Your task to perform on an android device: Open Maps and search for coffee Image 0: 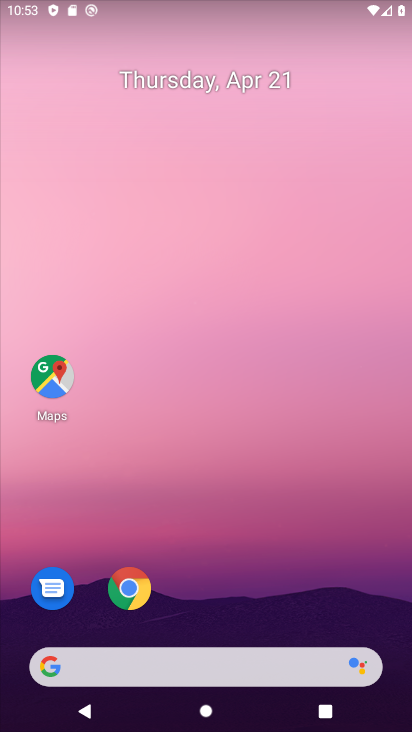
Step 0: click (37, 379)
Your task to perform on an android device: Open Maps and search for coffee Image 1: 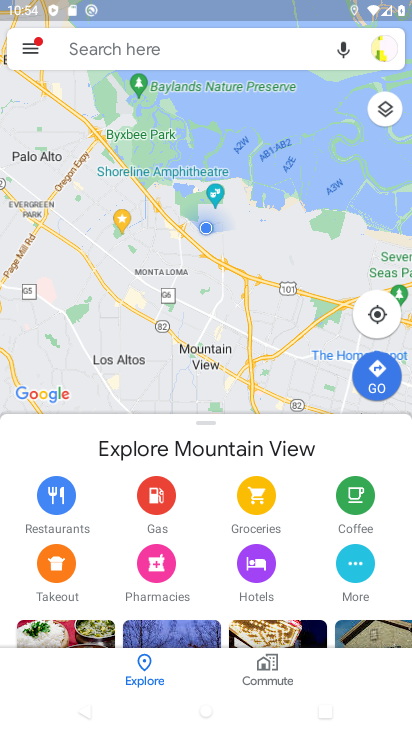
Step 1: click (191, 50)
Your task to perform on an android device: Open Maps and search for coffee Image 2: 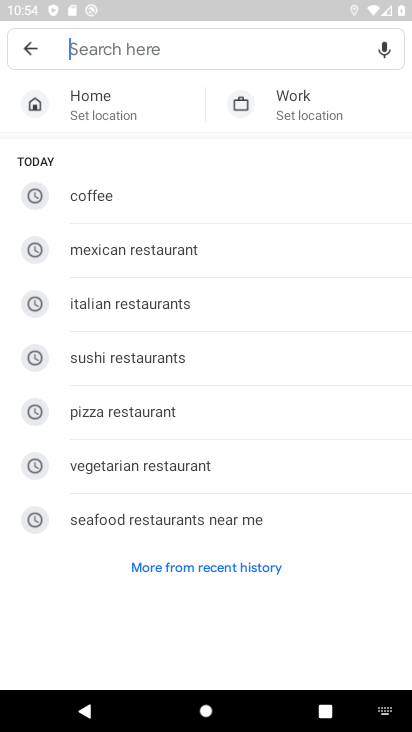
Step 2: type "coffee"
Your task to perform on an android device: Open Maps and search for coffee Image 3: 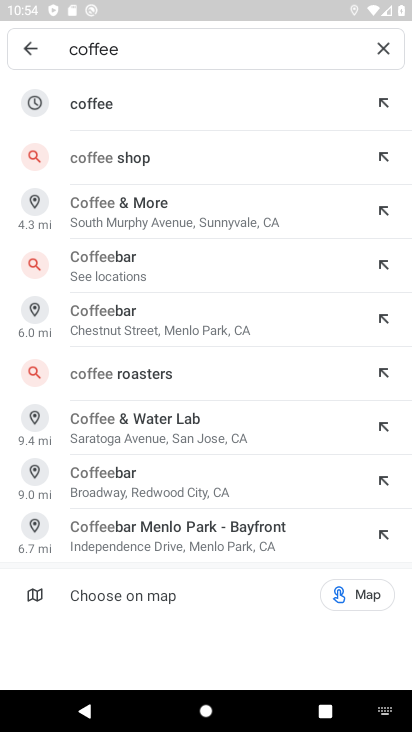
Step 3: click (114, 111)
Your task to perform on an android device: Open Maps and search for coffee Image 4: 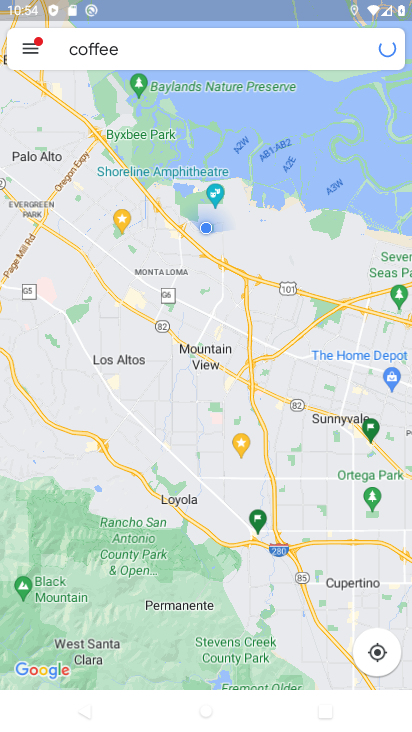
Step 4: task complete